Your task to perform on an android device: toggle notification dots Image 0: 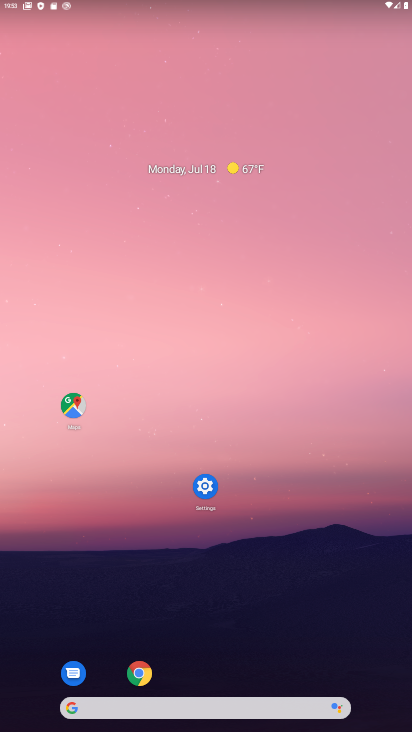
Step 0: drag from (242, 661) to (227, 215)
Your task to perform on an android device: toggle notification dots Image 1: 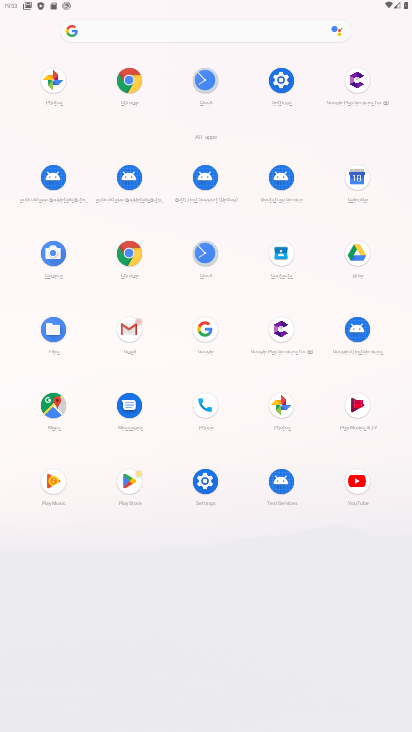
Step 1: click (199, 486)
Your task to perform on an android device: toggle notification dots Image 2: 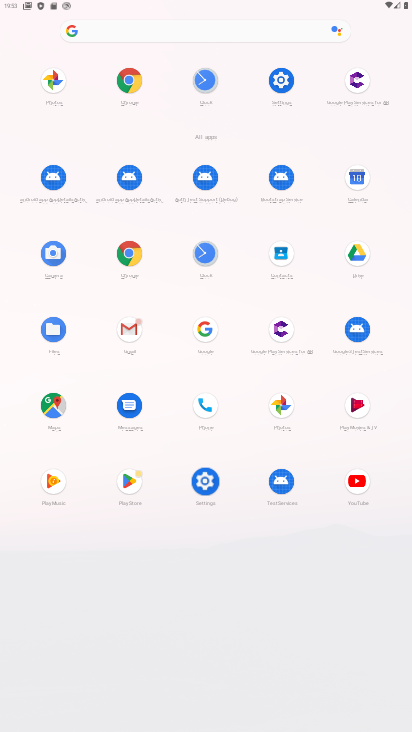
Step 2: click (207, 483)
Your task to perform on an android device: toggle notification dots Image 3: 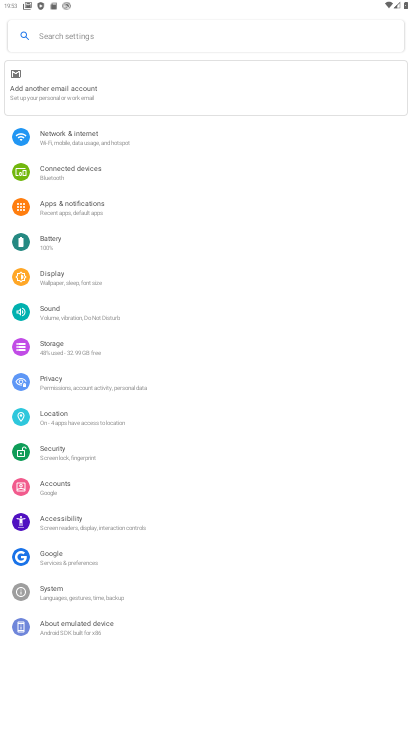
Step 3: click (209, 485)
Your task to perform on an android device: toggle notification dots Image 4: 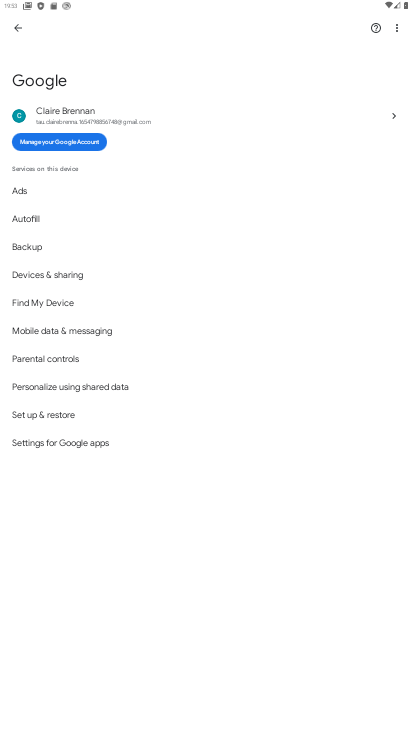
Step 4: click (15, 32)
Your task to perform on an android device: toggle notification dots Image 5: 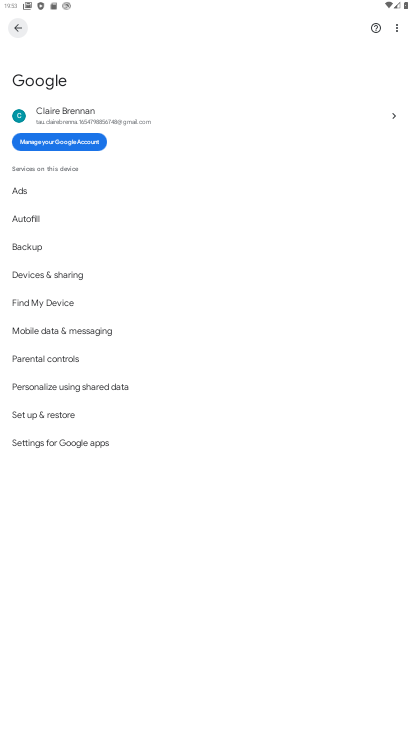
Step 5: click (16, 30)
Your task to perform on an android device: toggle notification dots Image 6: 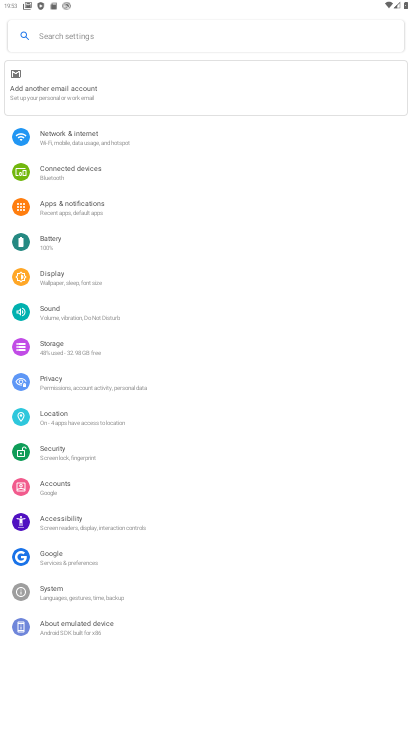
Step 6: click (68, 206)
Your task to perform on an android device: toggle notification dots Image 7: 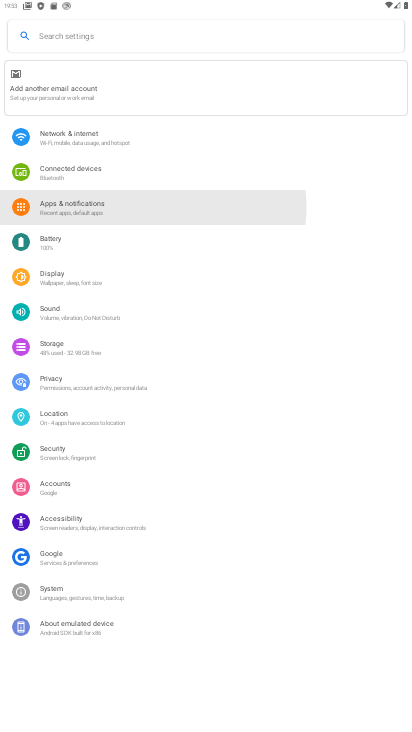
Step 7: click (68, 206)
Your task to perform on an android device: toggle notification dots Image 8: 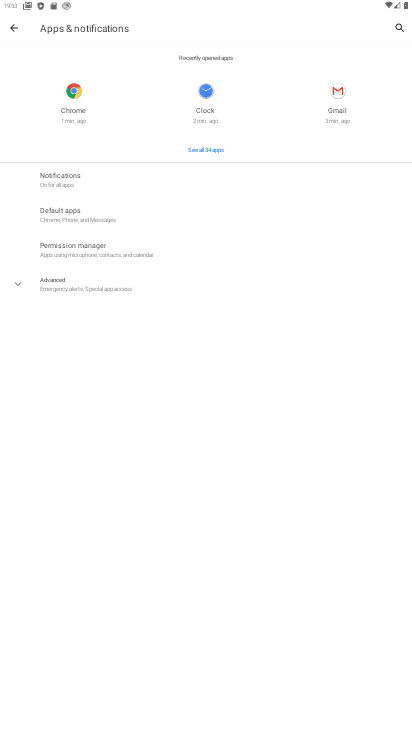
Step 8: click (59, 181)
Your task to perform on an android device: toggle notification dots Image 9: 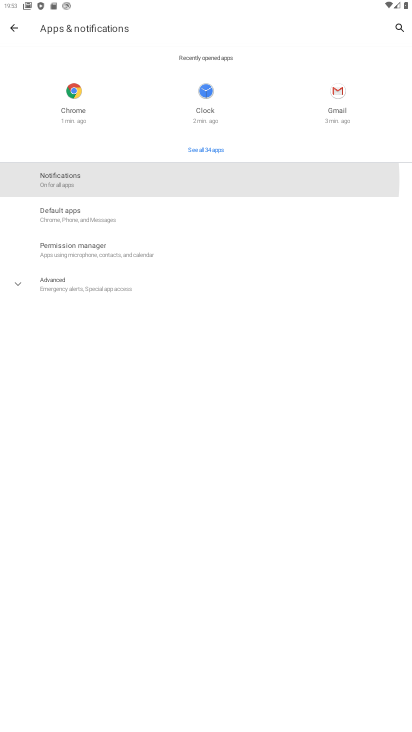
Step 9: click (59, 181)
Your task to perform on an android device: toggle notification dots Image 10: 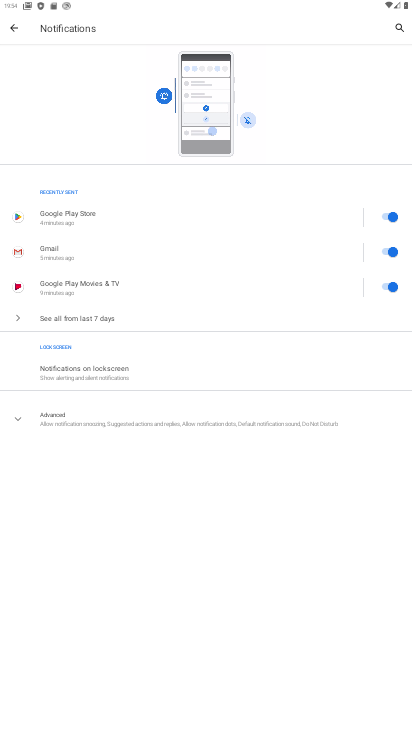
Step 10: click (57, 414)
Your task to perform on an android device: toggle notification dots Image 11: 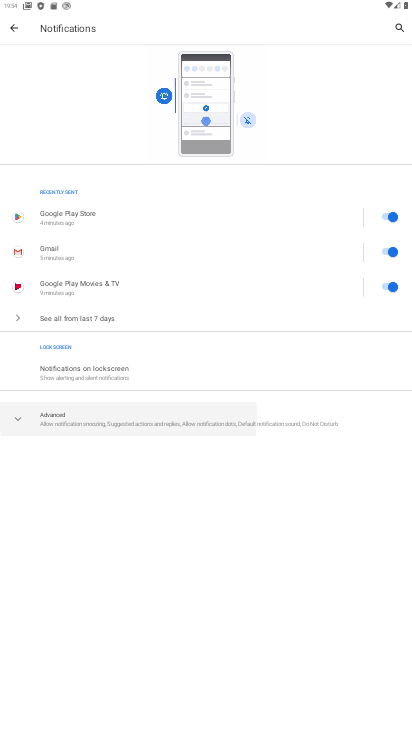
Step 11: click (57, 414)
Your task to perform on an android device: toggle notification dots Image 12: 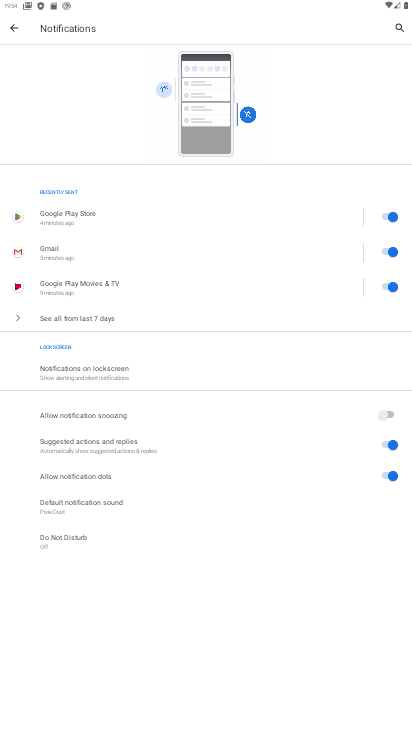
Step 12: click (394, 475)
Your task to perform on an android device: toggle notification dots Image 13: 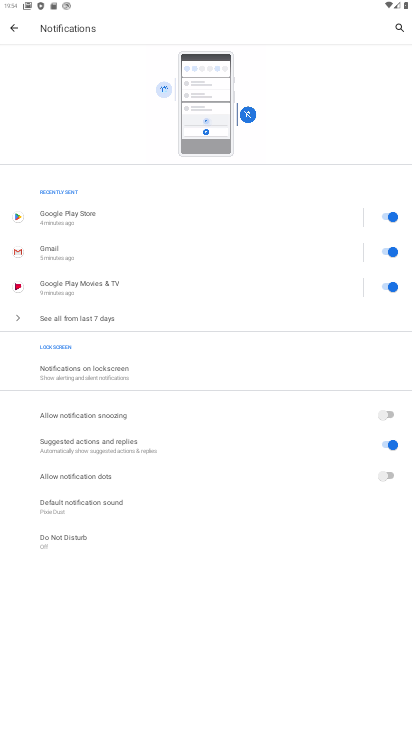
Step 13: task complete